Your task to perform on an android device: Show me the alarms in the clock app Image 0: 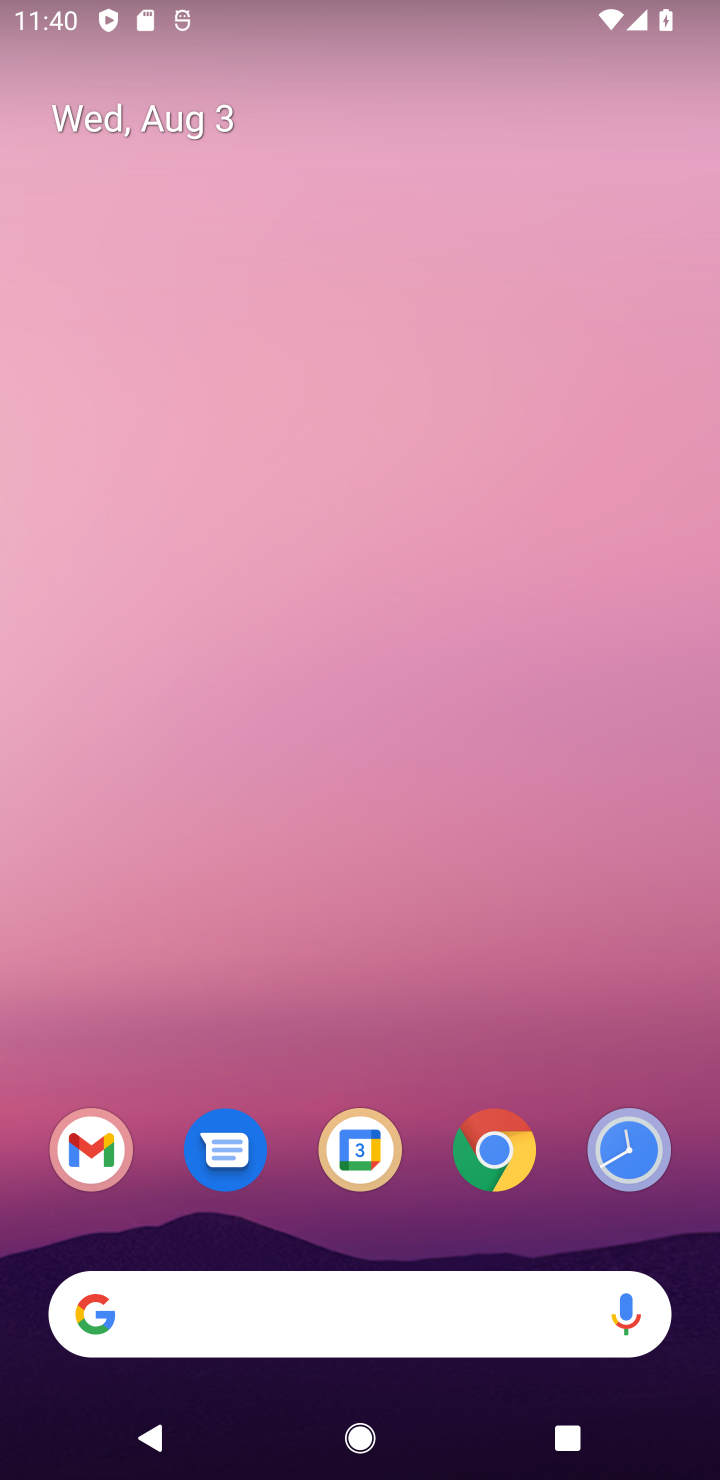
Step 0: press home button
Your task to perform on an android device: Show me the alarms in the clock app Image 1: 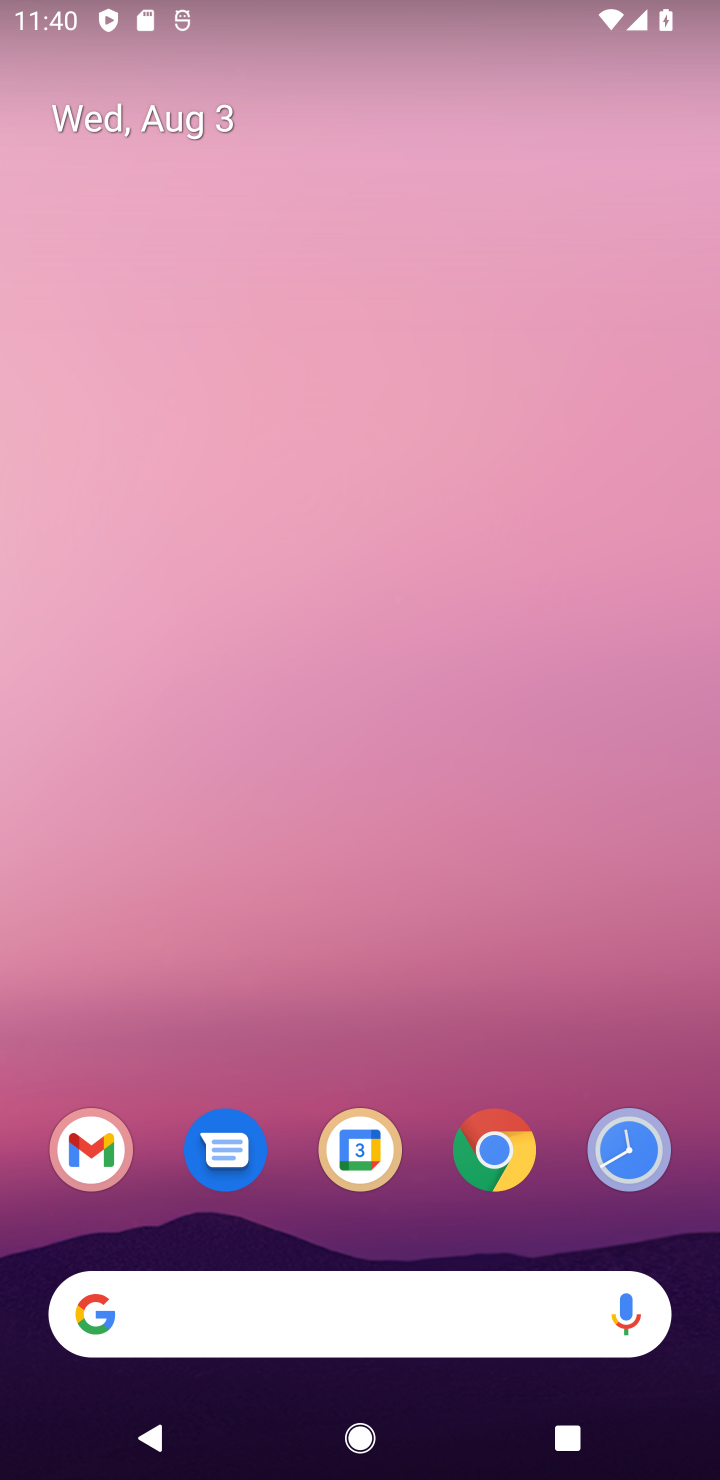
Step 1: drag from (565, 1007) to (550, 285)
Your task to perform on an android device: Show me the alarms in the clock app Image 2: 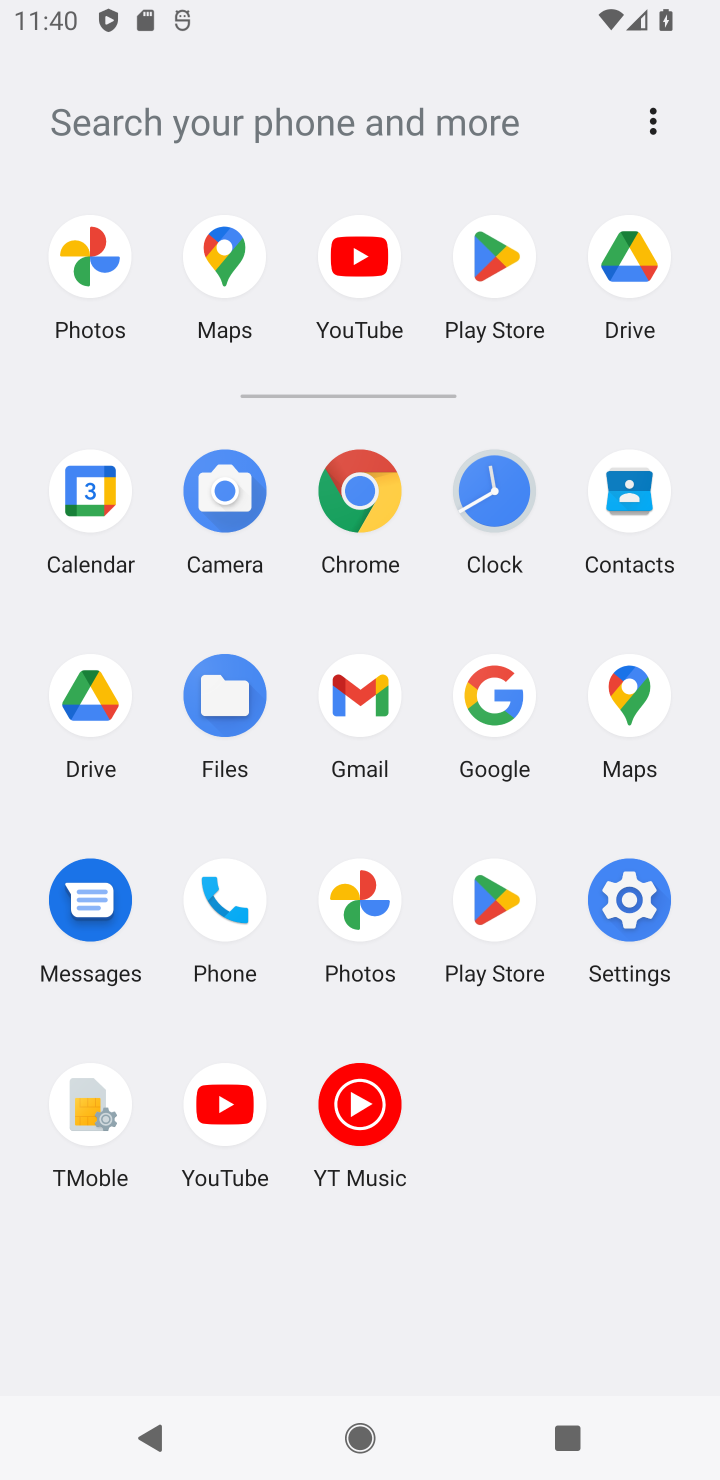
Step 2: click (501, 500)
Your task to perform on an android device: Show me the alarms in the clock app Image 3: 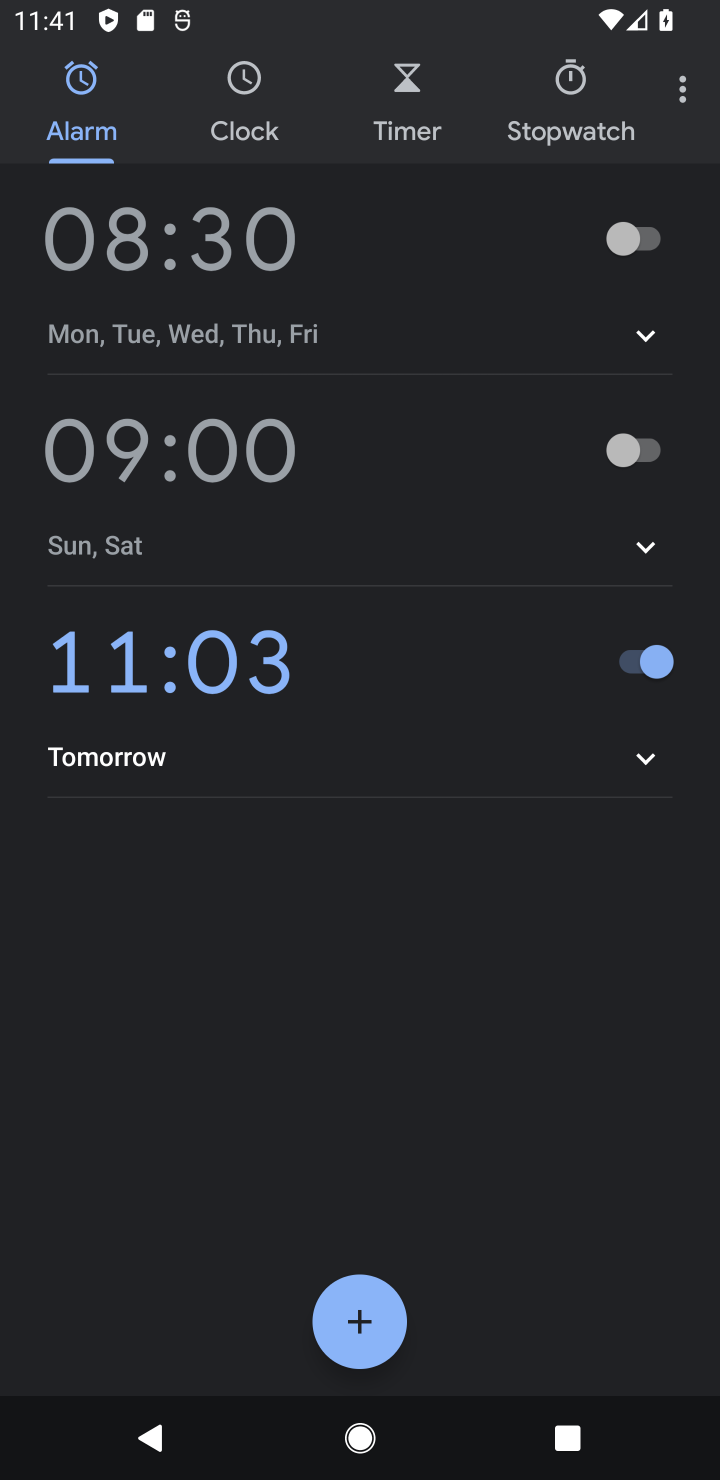
Step 3: task complete